Your task to perform on an android device: open device folders in google photos Image 0: 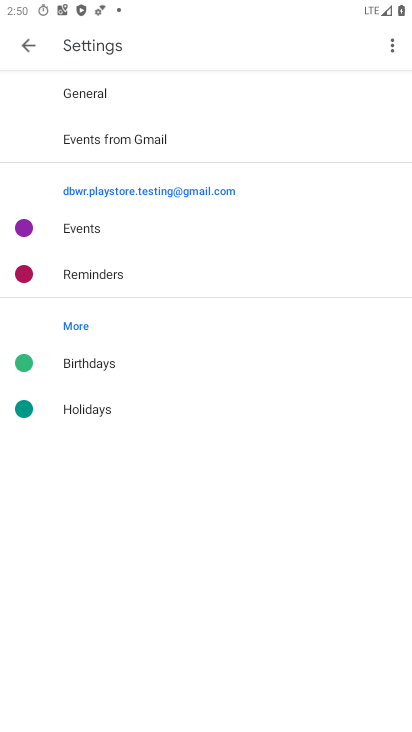
Step 0: press home button
Your task to perform on an android device: open device folders in google photos Image 1: 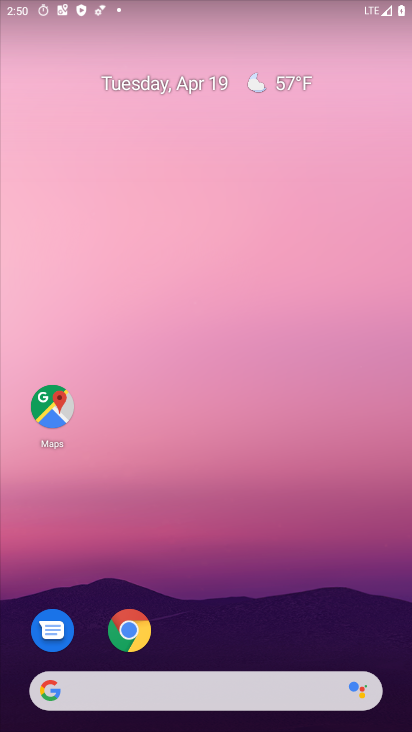
Step 1: drag from (249, 632) to (251, 40)
Your task to perform on an android device: open device folders in google photos Image 2: 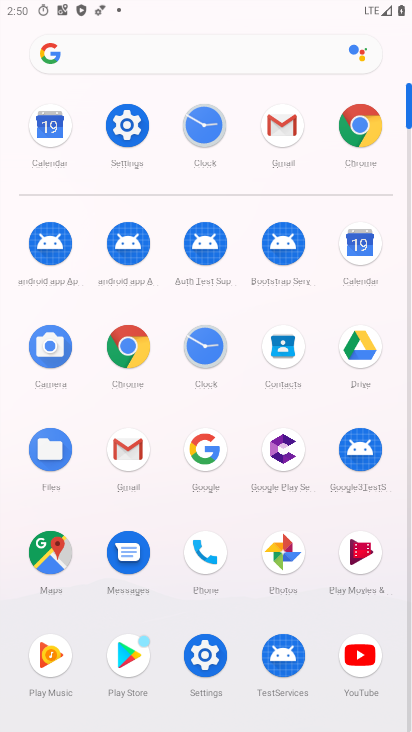
Step 2: click (287, 552)
Your task to perform on an android device: open device folders in google photos Image 3: 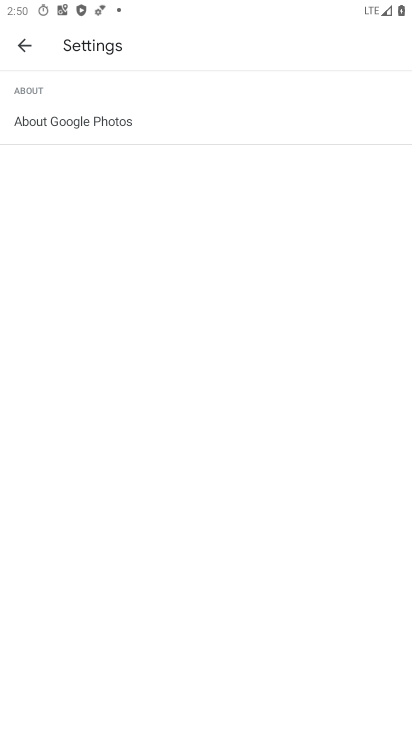
Step 3: click (22, 38)
Your task to perform on an android device: open device folders in google photos Image 4: 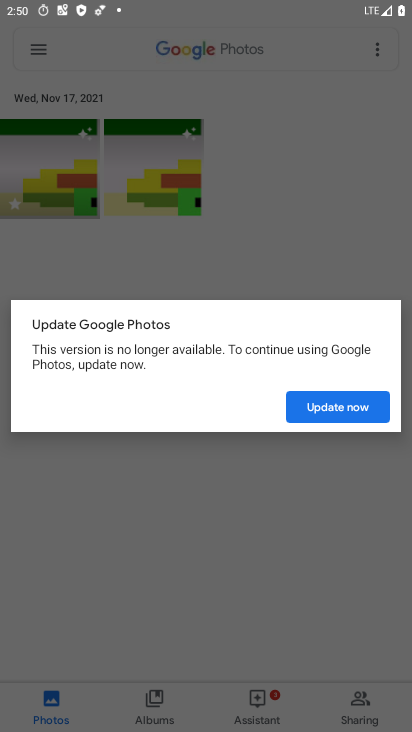
Step 4: click (358, 403)
Your task to perform on an android device: open device folders in google photos Image 5: 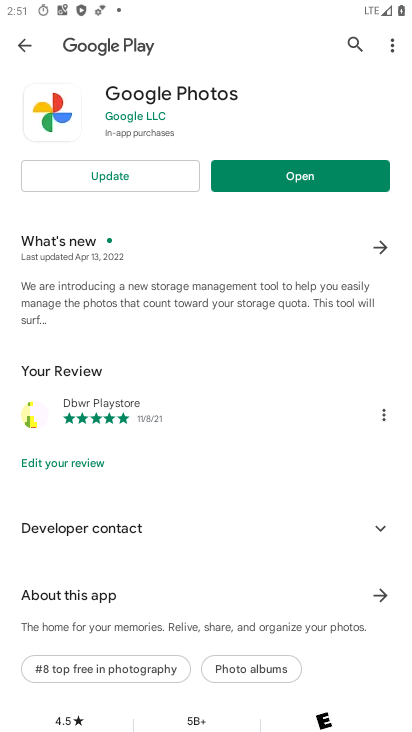
Step 5: click (143, 176)
Your task to perform on an android device: open device folders in google photos Image 6: 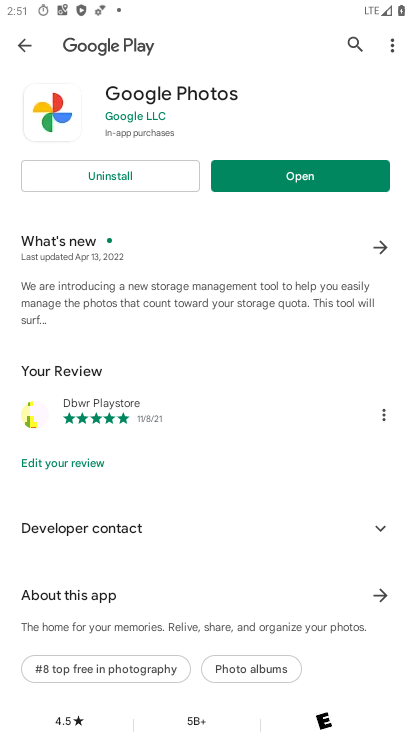
Step 6: click (326, 170)
Your task to perform on an android device: open device folders in google photos Image 7: 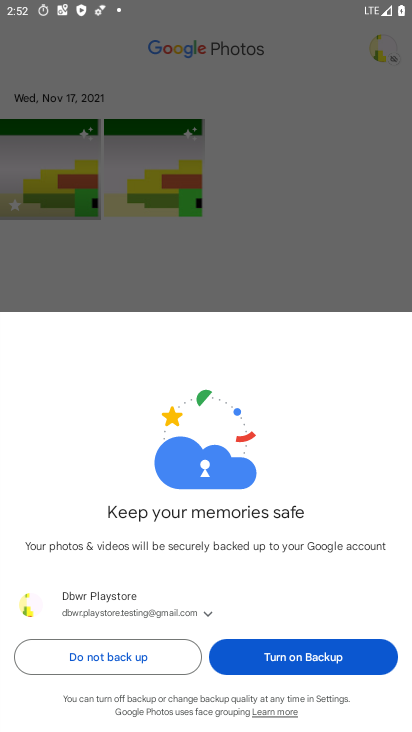
Step 7: click (196, 258)
Your task to perform on an android device: open device folders in google photos Image 8: 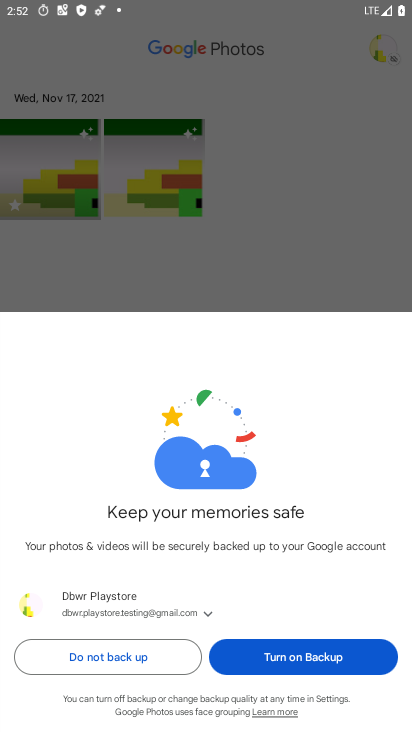
Step 8: click (282, 655)
Your task to perform on an android device: open device folders in google photos Image 9: 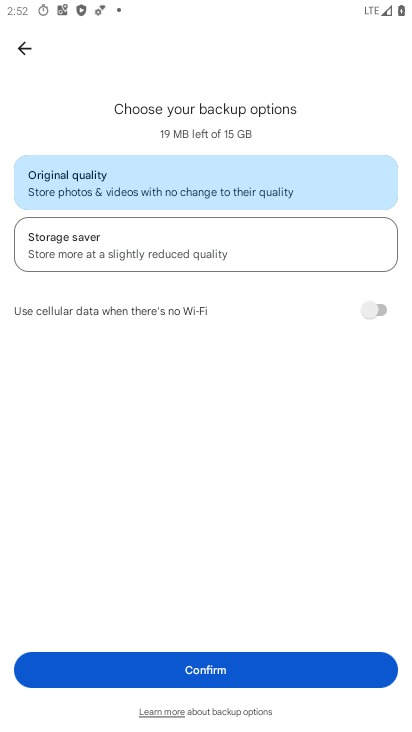
Step 9: click (297, 672)
Your task to perform on an android device: open device folders in google photos Image 10: 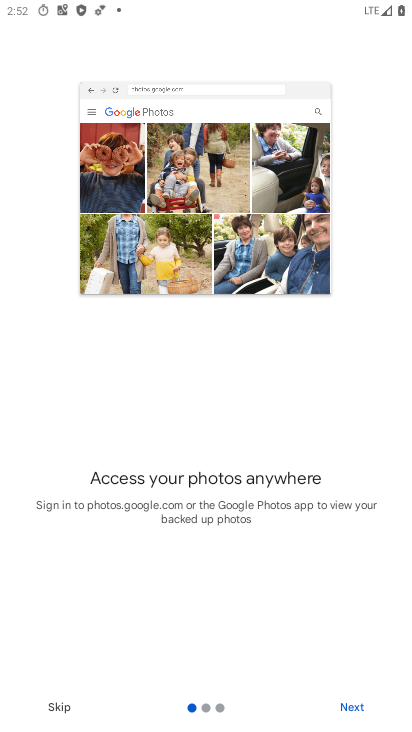
Step 10: click (355, 705)
Your task to perform on an android device: open device folders in google photos Image 11: 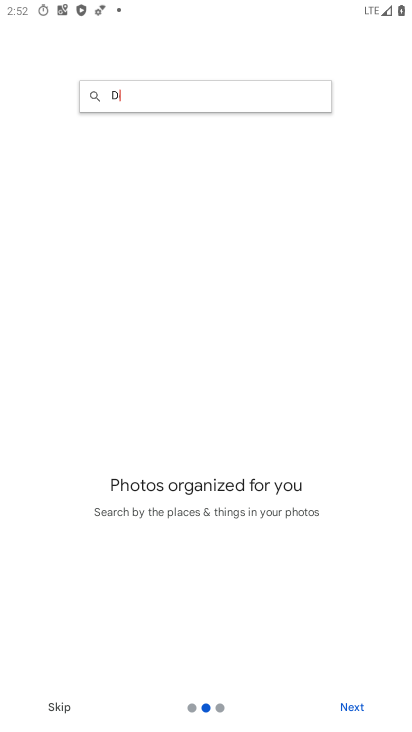
Step 11: click (357, 705)
Your task to perform on an android device: open device folders in google photos Image 12: 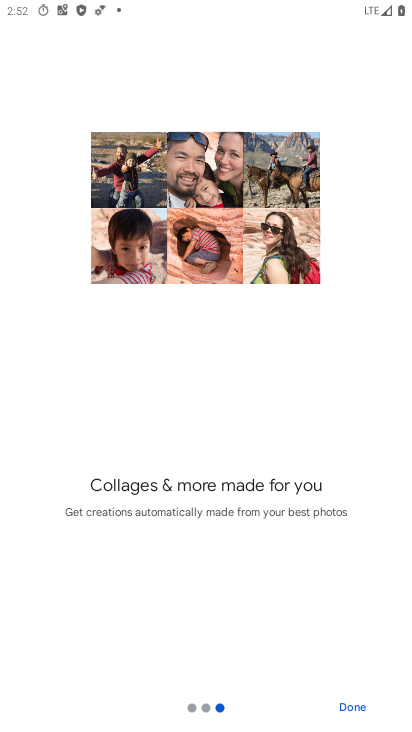
Step 12: click (358, 705)
Your task to perform on an android device: open device folders in google photos Image 13: 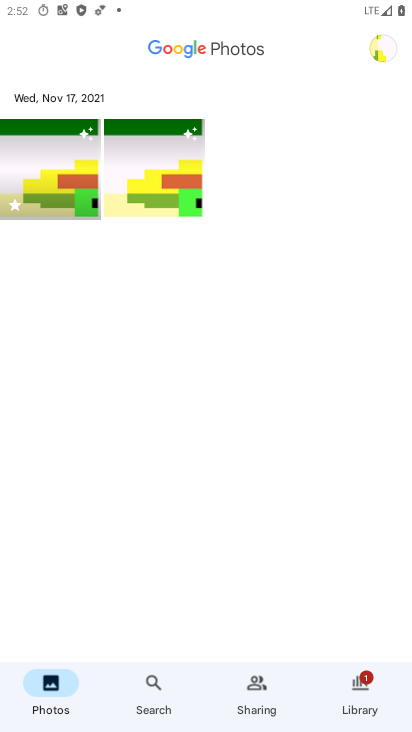
Step 13: click (36, 49)
Your task to perform on an android device: open device folders in google photos Image 14: 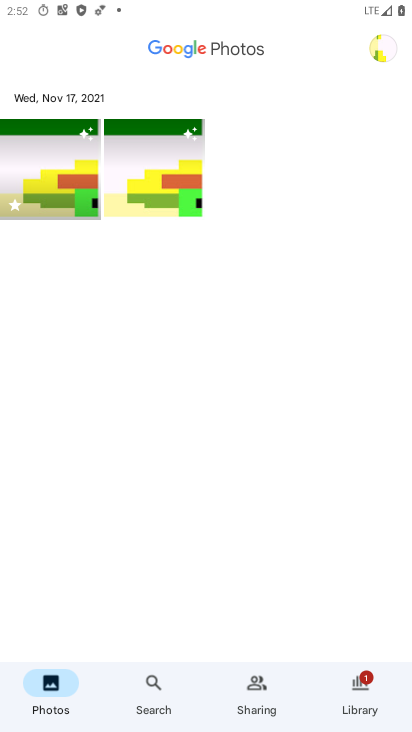
Step 14: click (383, 49)
Your task to perform on an android device: open device folders in google photos Image 15: 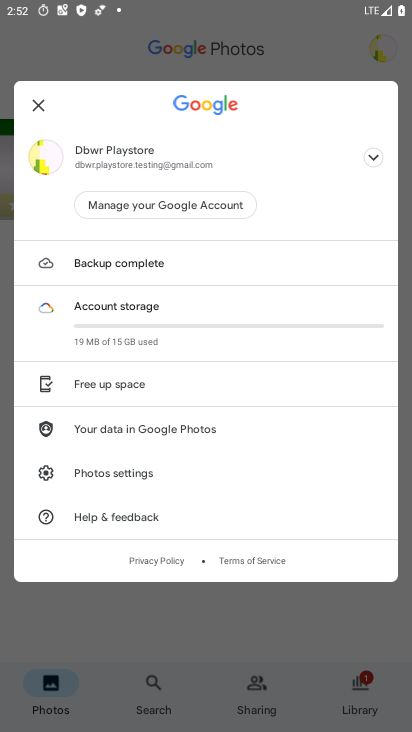
Step 15: click (31, 101)
Your task to perform on an android device: open device folders in google photos Image 16: 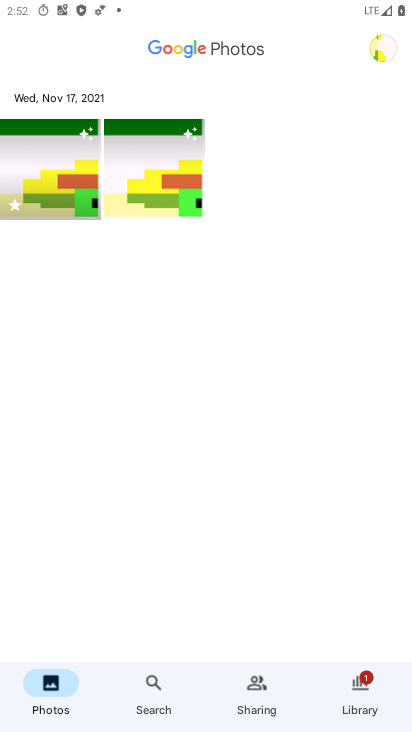
Step 16: click (362, 688)
Your task to perform on an android device: open device folders in google photos Image 17: 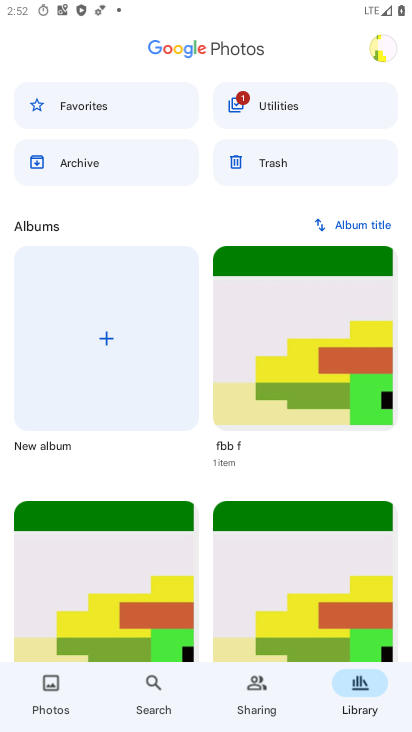
Step 17: click (256, 695)
Your task to perform on an android device: open device folders in google photos Image 18: 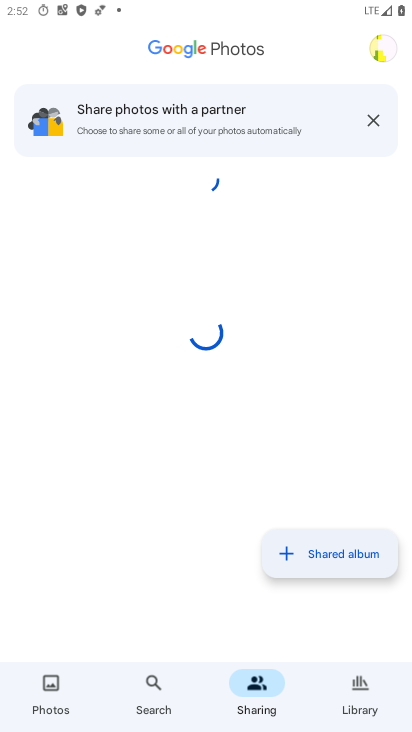
Step 18: click (150, 695)
Your task to perform on an android device: open device folders in google photos Image 19: 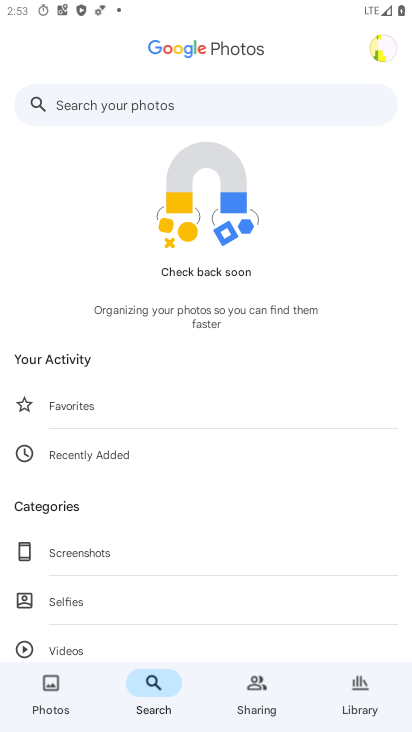
Step 19: drag from (166, 579) to (180, 378)
Your task to perform on an android device: open device folders in google photos Image 20: 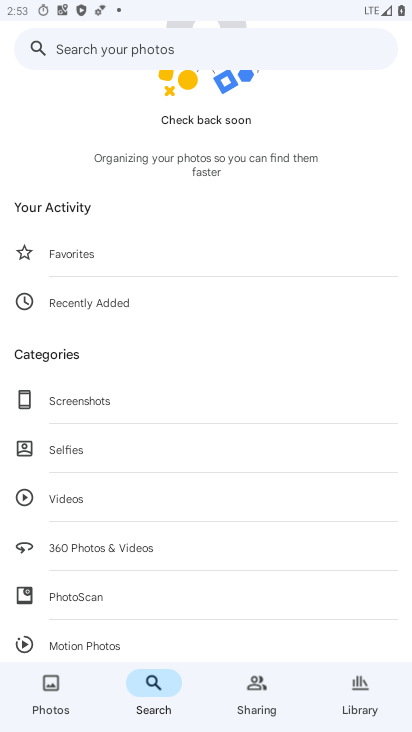
Step 20: drag from (173, 560) to (192, 315)
Your task to perform on an android device: open device folders in google photos Image 21: 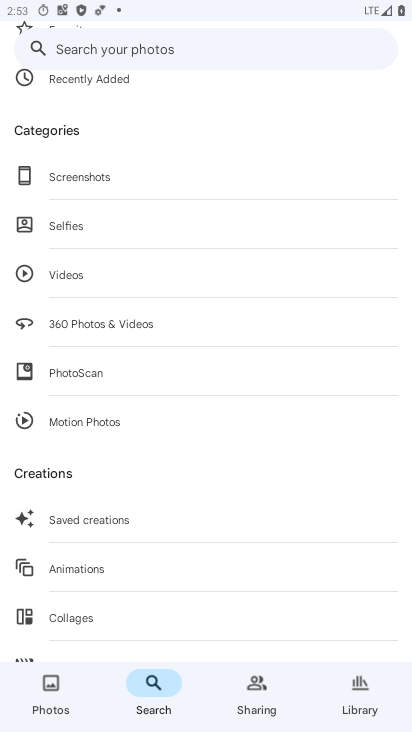
Step 21: drag from (175, 551) to (176, 291)
Your task to perform on an android device: open device folders in google photos Image 22: 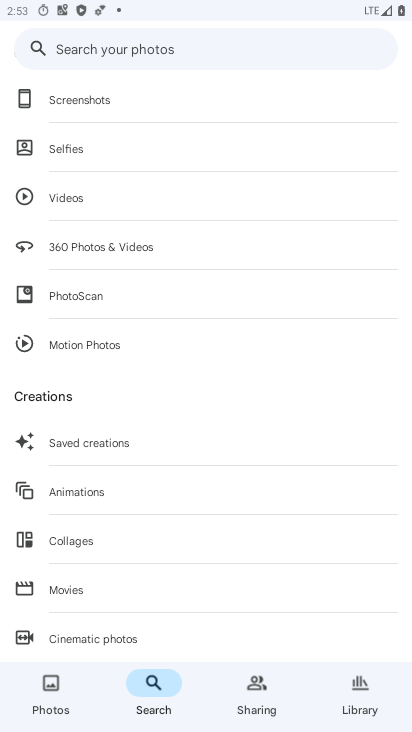
Step 22: drag from (141, 615) to (141, 333)
Your task to perform on an android device: open device folders in google photos Image 23: 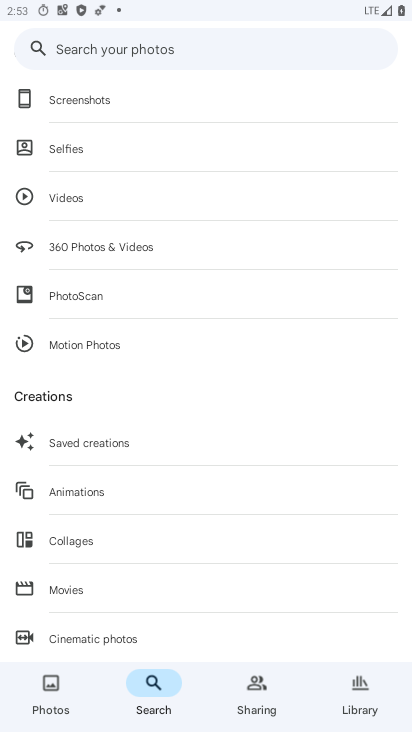
Step 23: drag from (186, 184) to (145, 590)
Your task to perform on an android device: open device folders in google photos Image 24: 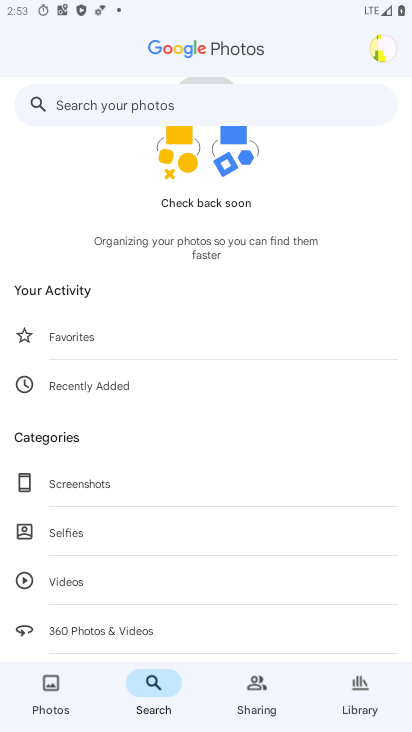
Step 24: drag from (158, 349) to (143, 570)
Your task to perform on an android device: open device folders in google photos Image 25: 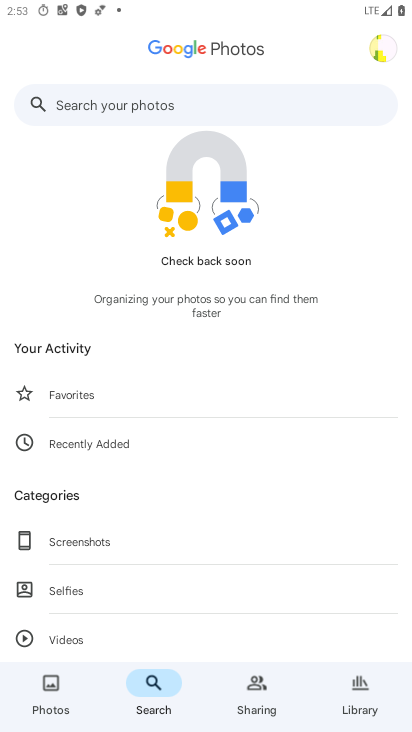
Step 25: click (115, 100)
Your task to perform on an android device: open device folders in google photos Image 26: 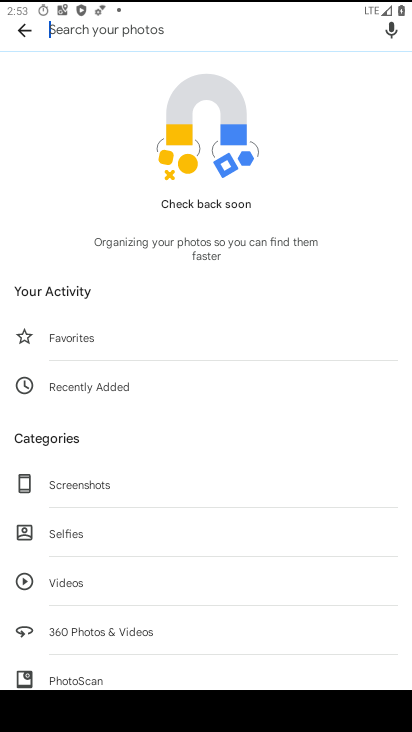
Step 26: type "device folder"
Your task to perform on an android device: open device folders in google photos Image 27: 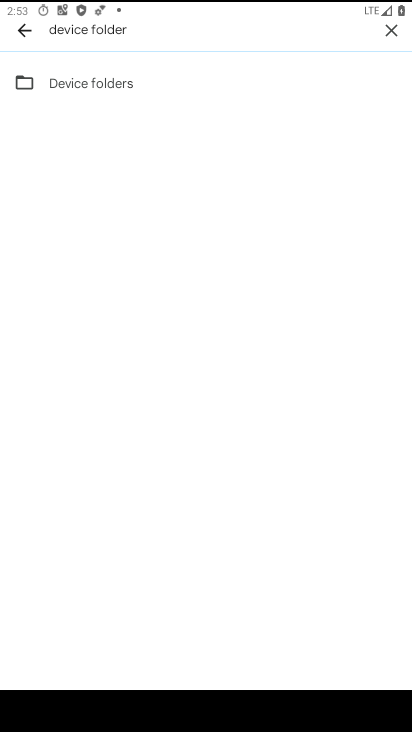
Step 27: click (57, 80)
Your task to perform on an android device: open device folders in google photos Image 28: 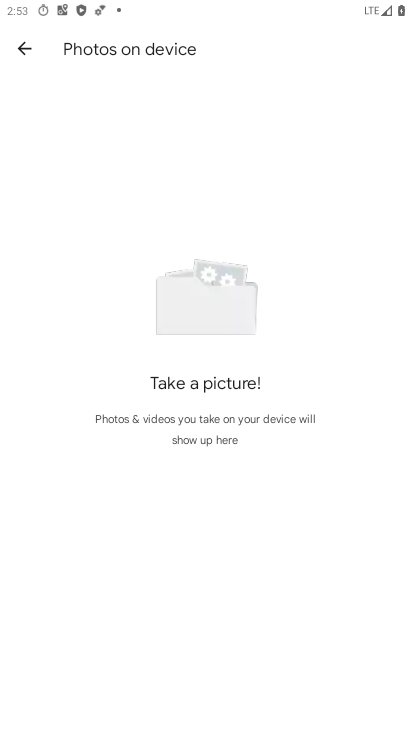
Step 28: task complete